Your task to perform on an android device: Open privacy settings Image 0: 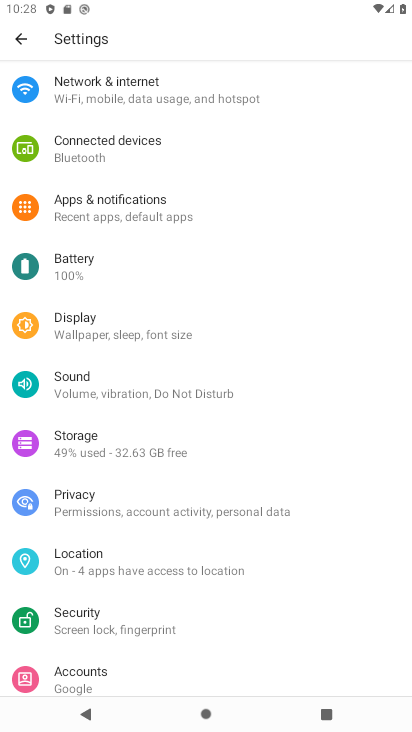
Step 0: press home button
Your task to perform on an android device: Open privacy settings Image 1: 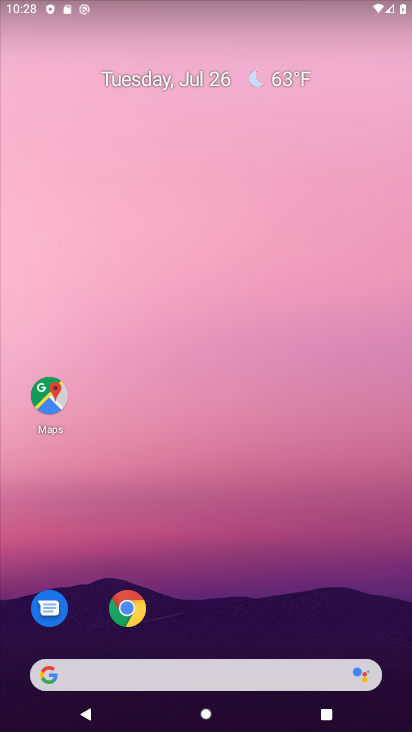
Step 1: drag from (229, 636) to (219, 105)
Your task to perform on an android device: Open privacy settings Image 2: 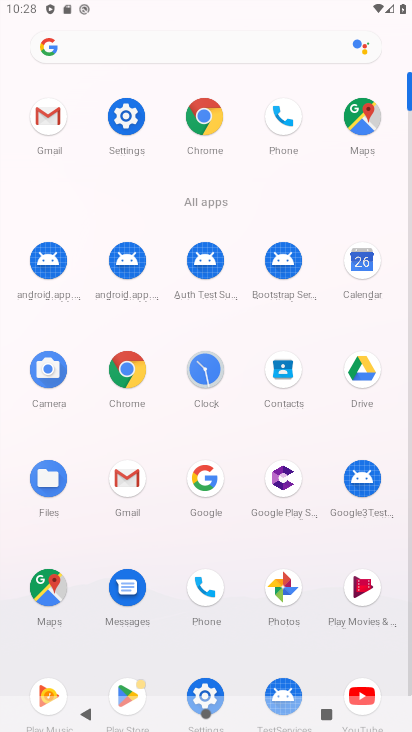
Step 2: click (121, 125)
Your task to perform on an android device: Open privacy settings Image 3: 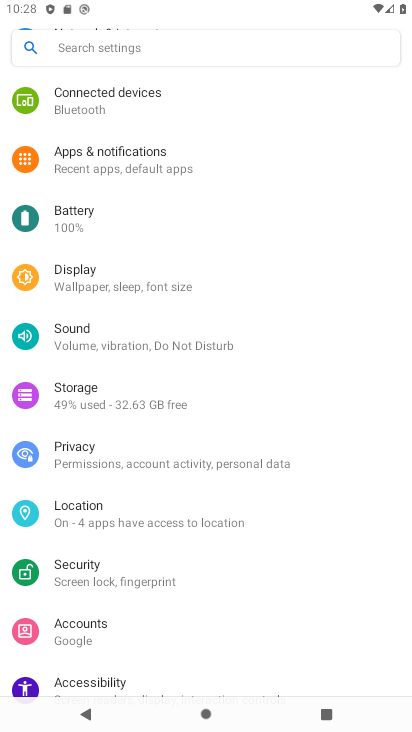
Step 3: click (73, 460)
Your task to perform on an android device: Open privacy settings Image 4: 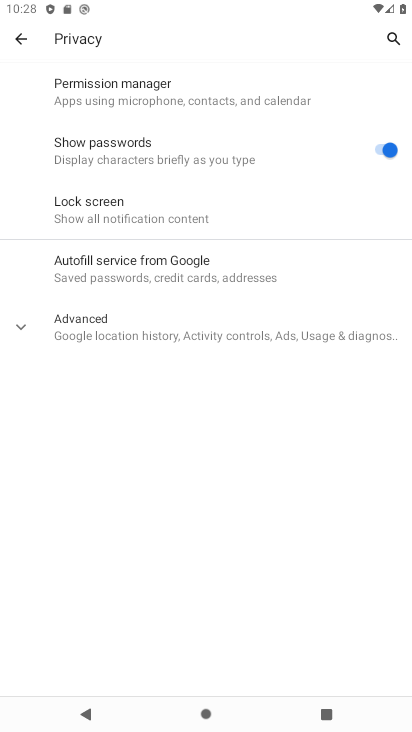
Step 4: task complete